Your task to perform on an android device: Turn on the flashlight Image 0: 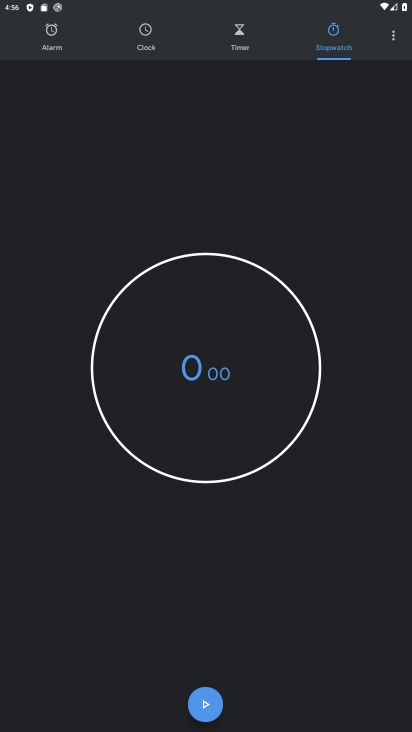
Step 0: task impossible